Your task to perform on an android device: Open calendar and show me the second week of next month Image 0: 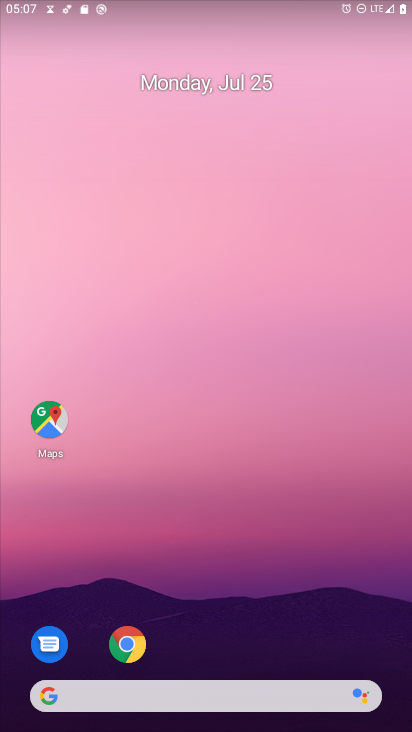
Step 0: press home button
Your task to perform on an android device: Open calendar and show me the second week of next month Image 1: 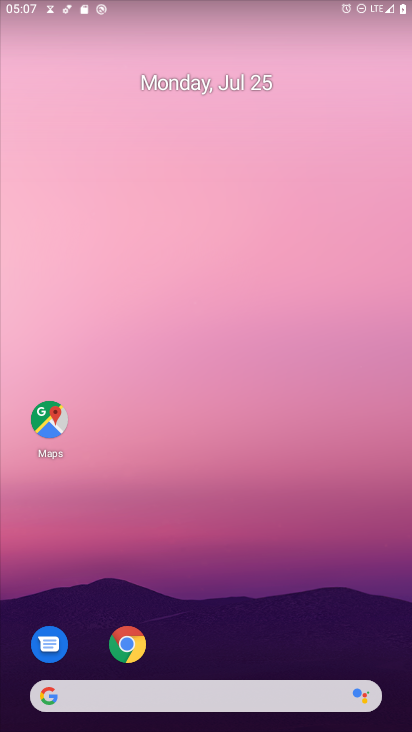
Step 1: drag from (271, 633) to (248, 174)
Your task to perform on an android device: Open calendar and show me the second week of next month Image 2: 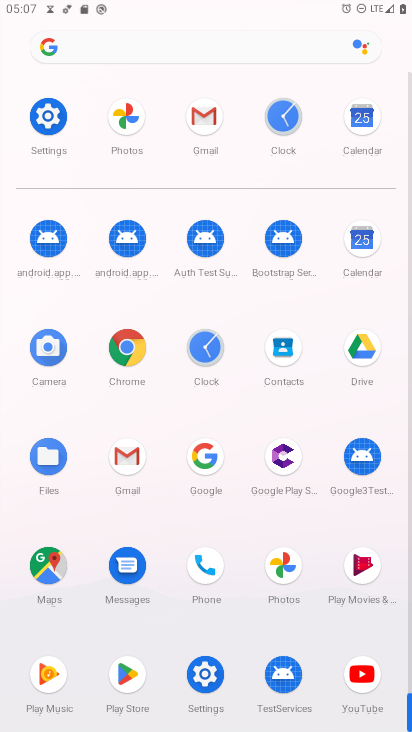
Step 2: click (359, 255)
Your task to perform on an android device: Open calendar and show me the second week of next month Image 3: 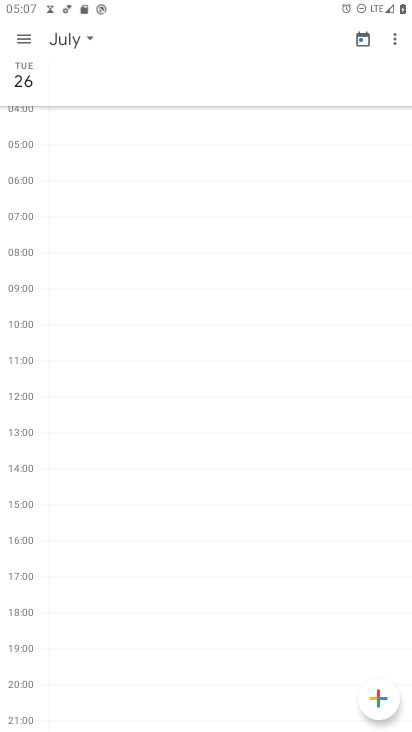
Step 3: click (20, 37)
Your task to perform on an android device: Open calendar and show me the second week of next month Image 4: 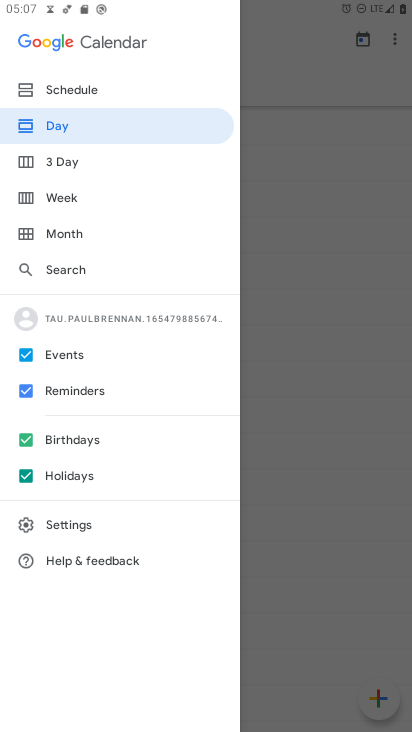
Step 4: click (65, 198)
Your task to perform on an android device: Open calendar and show me the second week of next month Image 5: 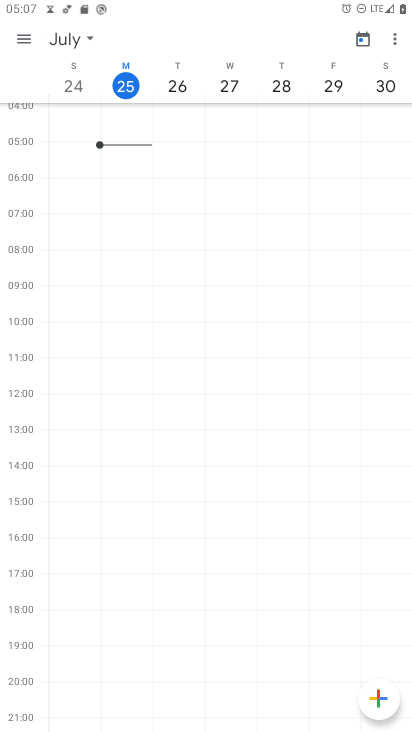
Step 5: task complete